Your task to perform on an android device: Open Wikipedia Image 0: 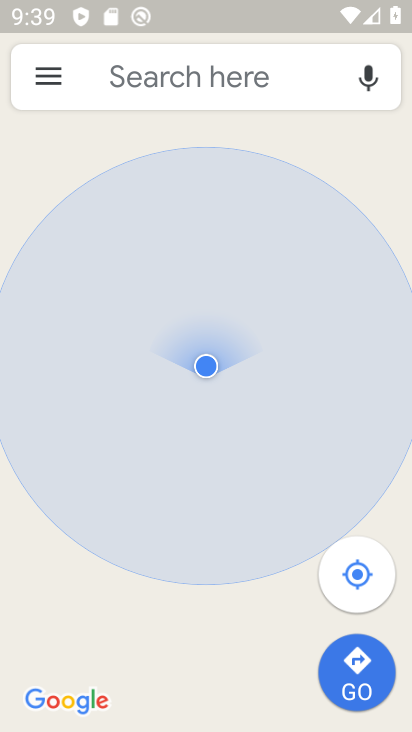
Step 0: press back button
Your task to perform on an android device: Open Wikipedia Image 1: 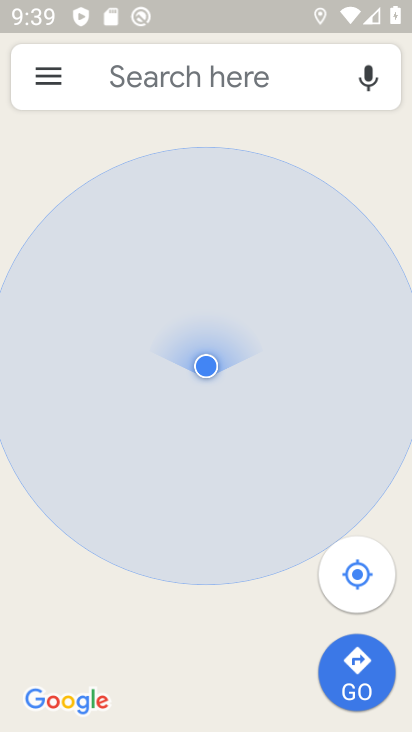
Step 1: press back button
Your task to perform on an android device: Open Wikipedia Image 2: 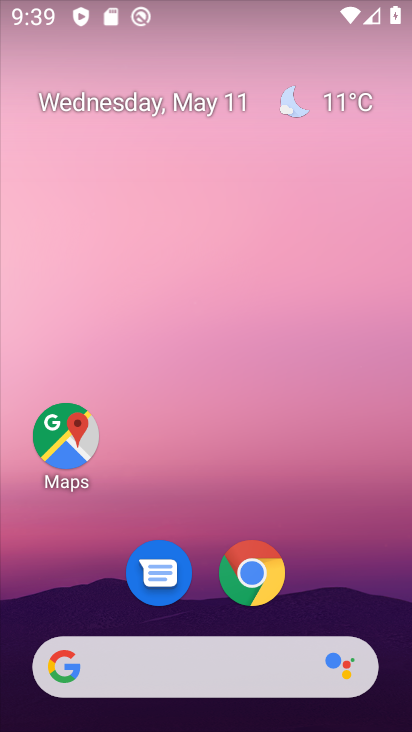
Step 2: drag from (358, 555) to (170, 84)
Your task to perform on an android device: Open Wikipedia Image 3: 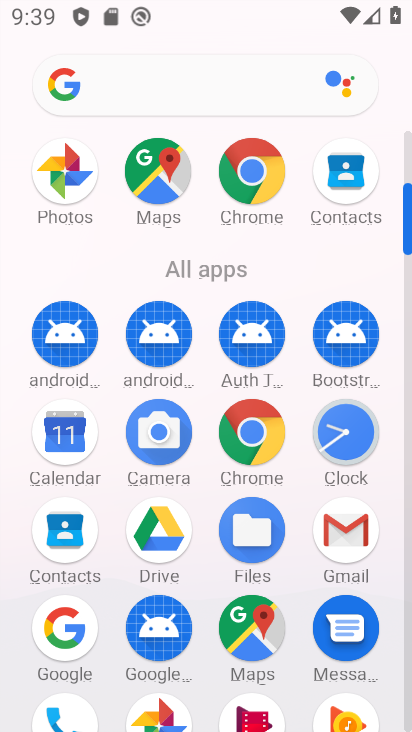
Step 3: drag from (302, 453) to (273, 72)
Your task to perform on an android device: Open Wikipedia Image 4: 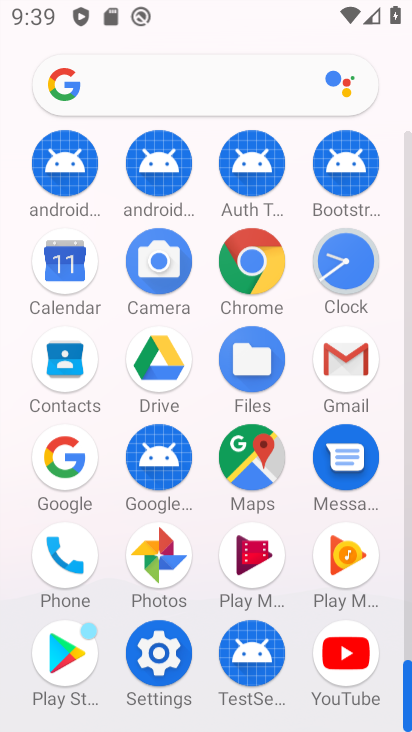
Step 4: drag from (294, 390) to (280, 152)
Your task to perform on an android device: Open Wikipedia Image 5: 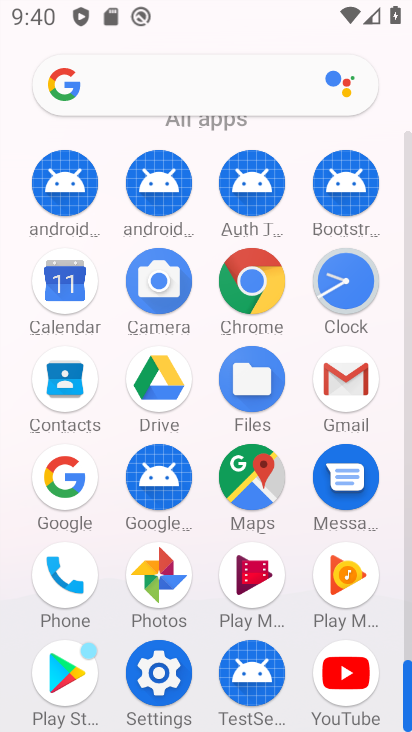
Step 5: click (152, 670)
Your task to perform on an android device: Open Wikipedia Image 6: 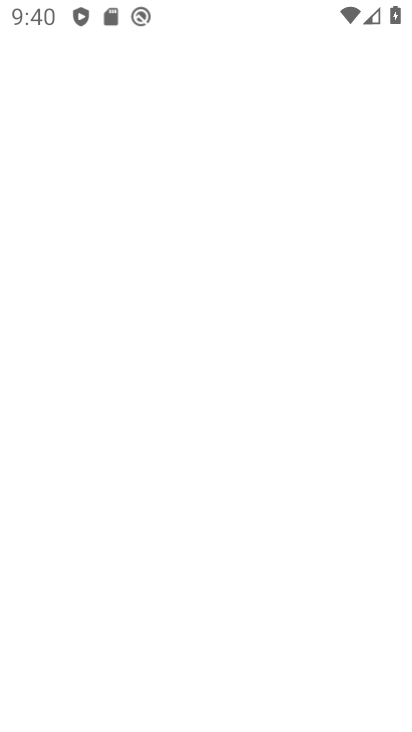
Step 6: press back button
Your task to perform on an android device: Open Wikipedia Image 7: 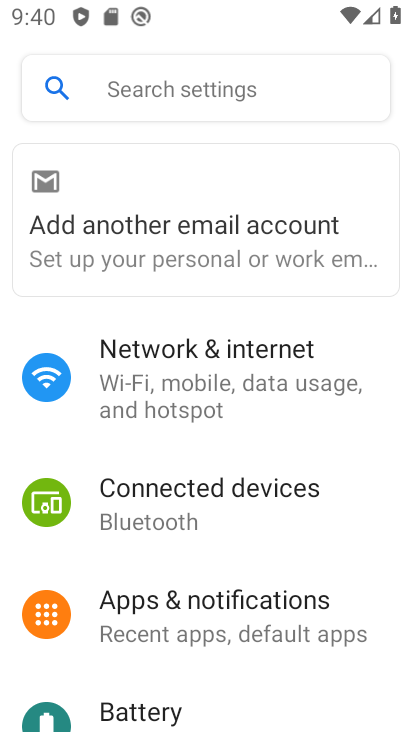
Step 7: press back button
Your task to perform on an android device: Open Wikipedia Image 8: 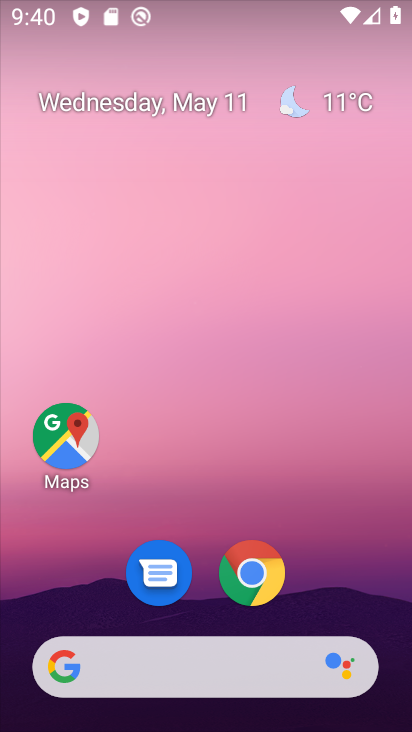
Step 8: drag from (281, 520) to (182, 122)
Your task to perform on an android device: Open Wikipedia Image 9: 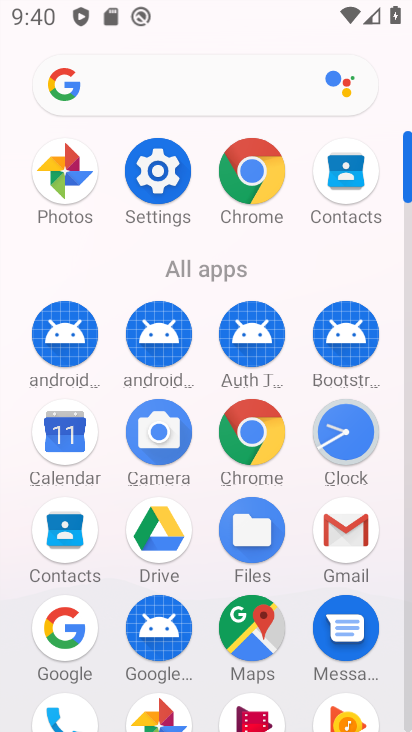
Step 9: click (253, 425)
Your task to perform on an android device: Open Wikipedia Image 10: 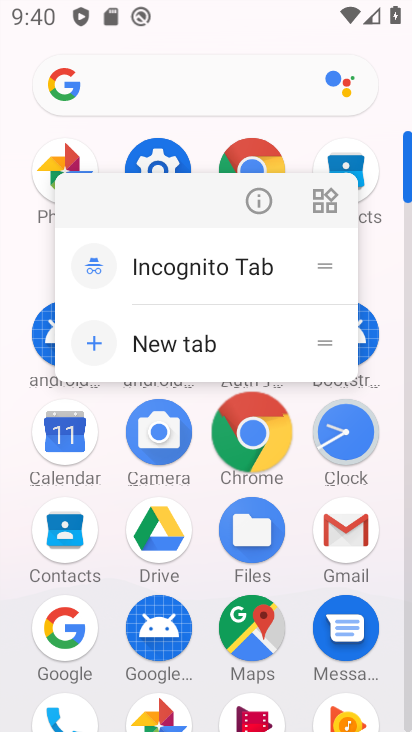
Step 10: click (255, 424)
Your task to perform on an android device: Open Wikipedia Image 11: 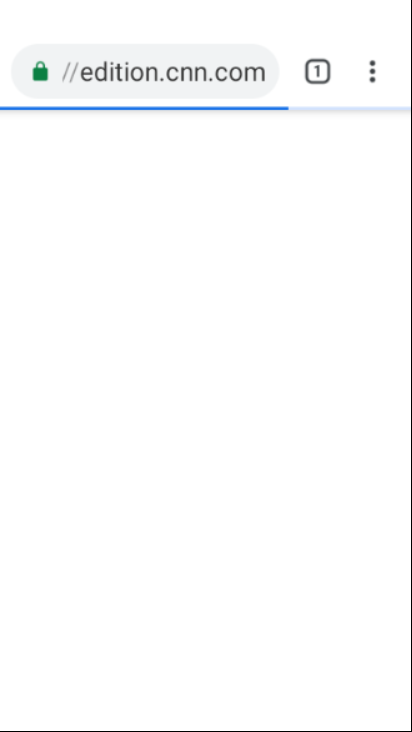
Step 11: click (253, 426)
Your task to perform on an android device: Open Wikipedia Image 12: 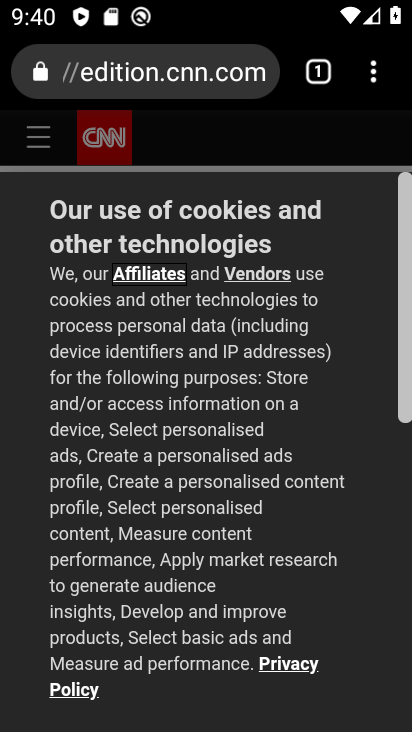
Step 12: drag from (370, 76) to (124, 150)
Your task to perform on an android device: Open Wikipedia Image 13: 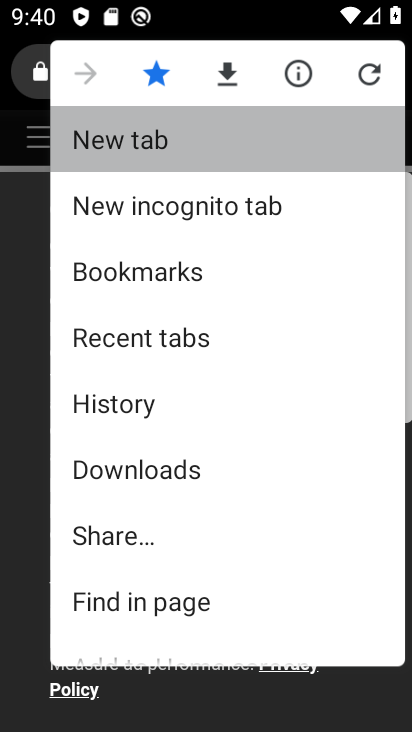
Step 13: click (124, 150)
Your task to perform on an android device: Open Wikipedia Image 14: 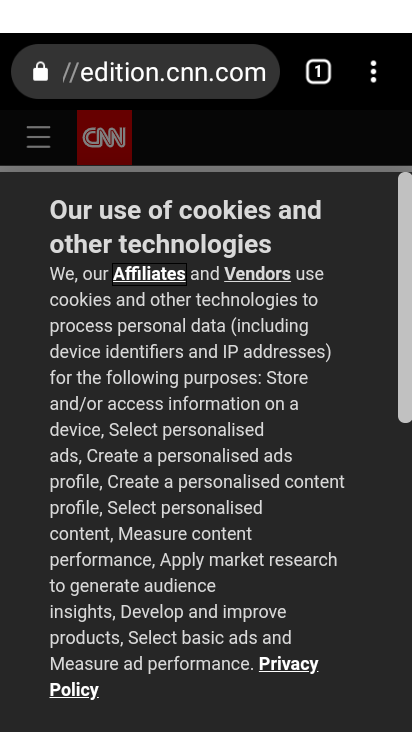
Step 14: click (124, 150)
Your task to perform on an android device: Open Wikipedia Image 15: 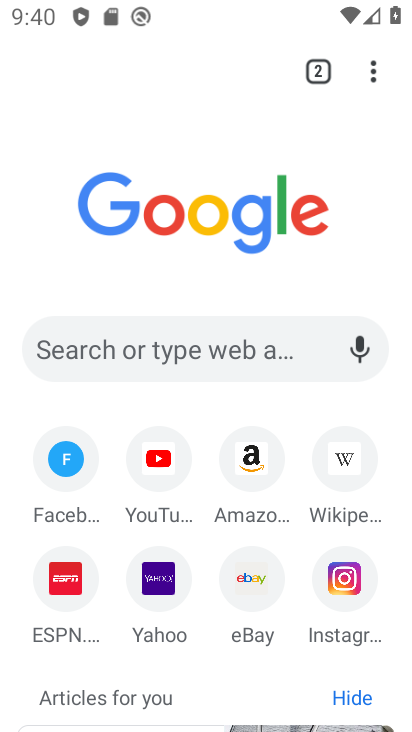
Step 15: click (91, 331)
Your task to perform on an android device: Open Wikipedia Image 16: 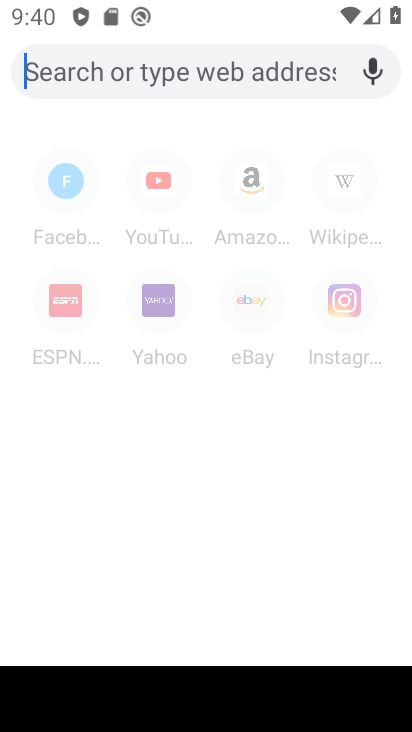
Step 16: click (336, 186)
Your task to perform on an android device: Open Wikipedia Image 17: 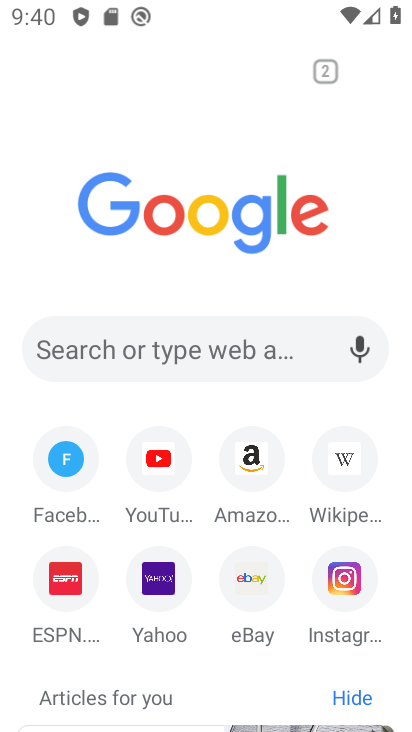
Step 17: click (336, 186)
Your task to perform on an android device: Open Wikipedia Image 18: 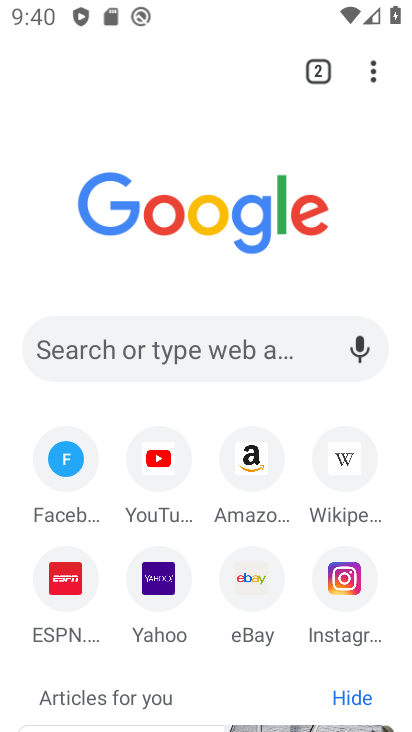
Step 18: click (336, 186)
Your task to perform on an android device: Open Wikipedia Image 19: 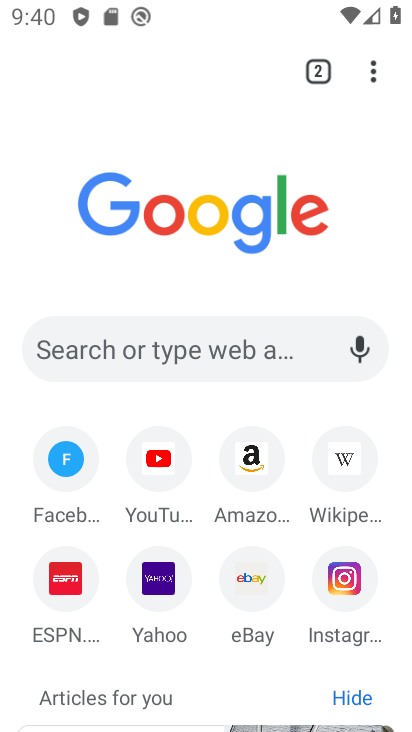
Step 19: click (336, 186)
Your task to perform on an android device: Open Wikipedia Image 20: 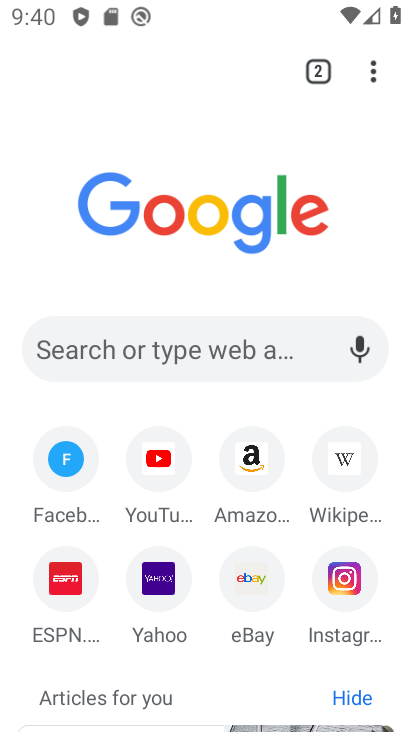
Step 20: click (331, 185)
Your task to perform on an android device: Open Wikipedia Image 21: 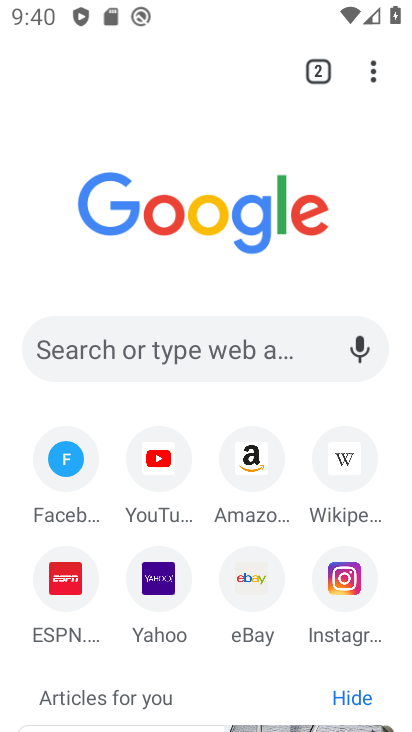
Step 21: click (338, 468)
Your task to perform on an android device: Open Wikipedia Image 22: 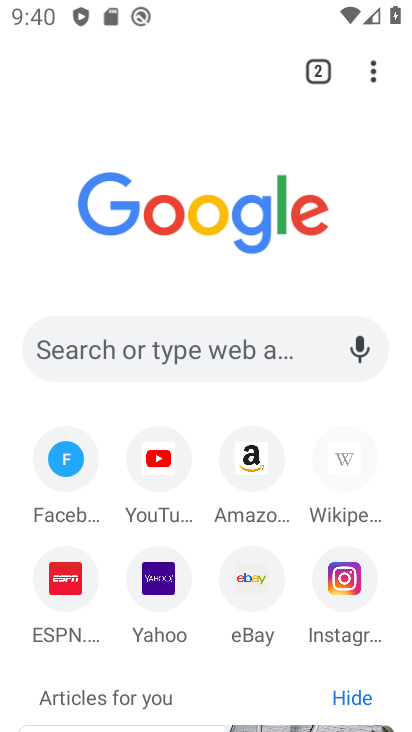
Step 22: click (339, 466)
Your task to perform on an android device: Open Wikipedia Image 23: 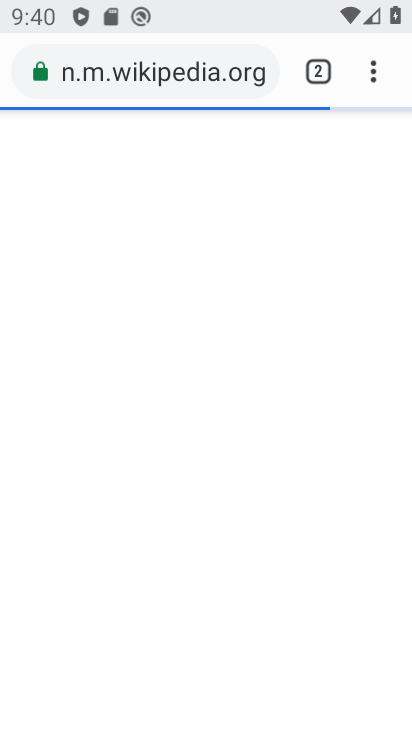
Step 23: click (339, 466)
Your task to perform on an android device: Open Wikipedia Image 24: 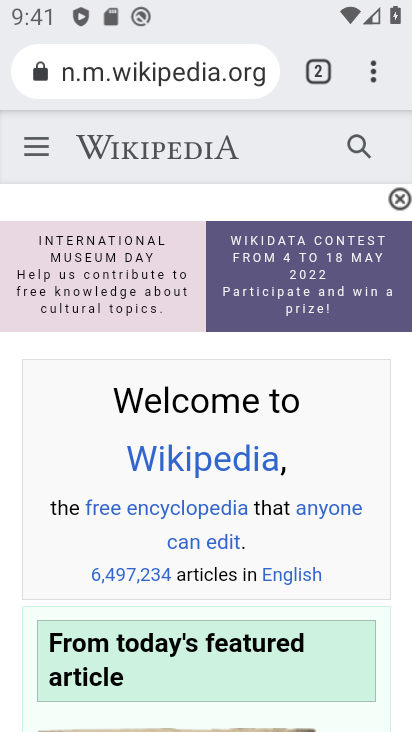
Step 24: task complete